Your task to perform on an android device: change alarm snooze length Image 0: 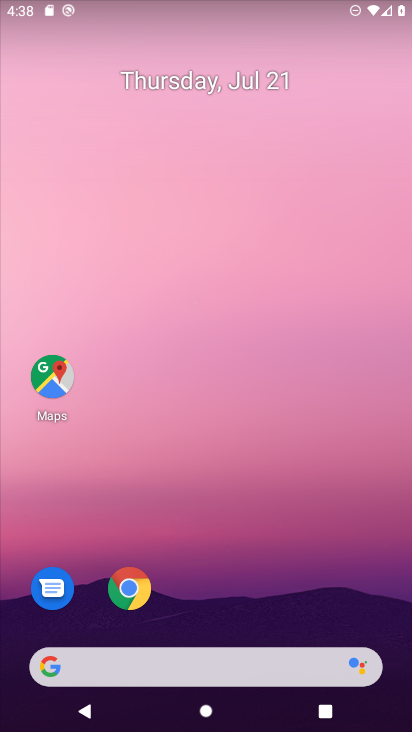
Step 0: drag from (273, 658) to (333, 195)
Your task to perform on an android device: change alarm snooze length Image 1: 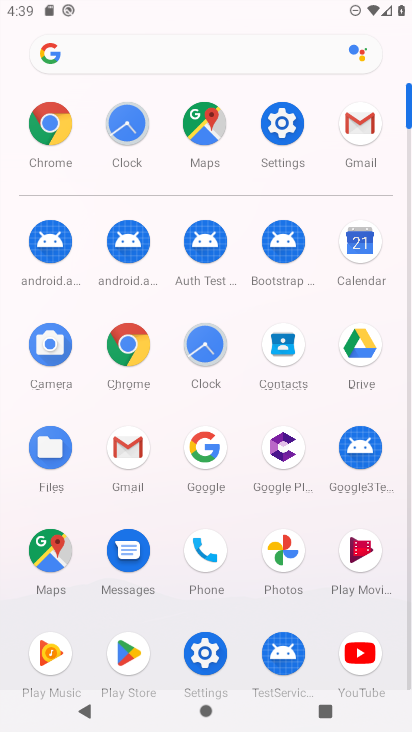
Step 1: click (221, 358)
Your task to perform on an android device: change alarm snooze length Image 2: 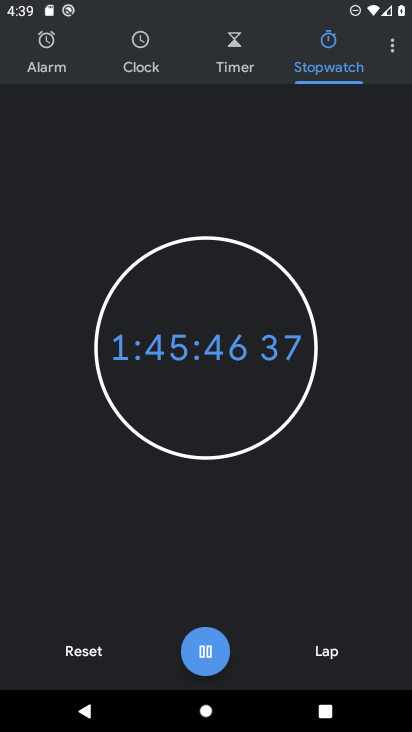
Step 2: click (390, 52)
Your task to perform on an android device: change alarm snooze length Image 3: 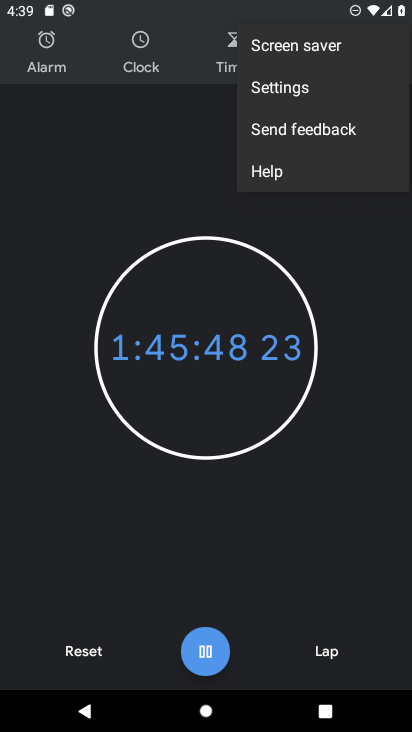
Step 3: click (298, 90)
Your task to perform on an android device: change alarm snooze length Image 4: 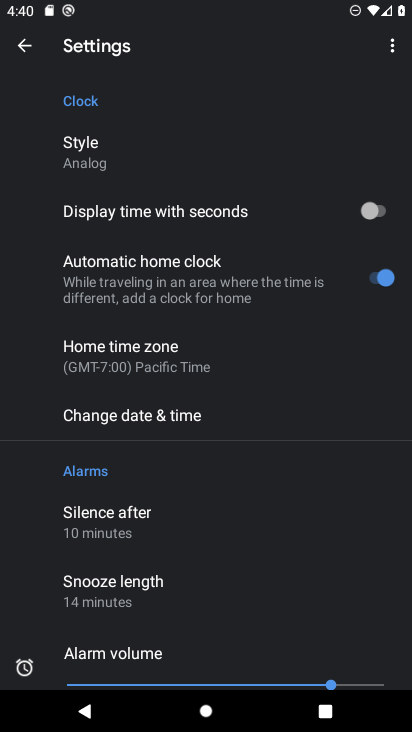
Step 4: click (143, 591)
Your task to perform on an android device: change alarm snooze length Image 5: 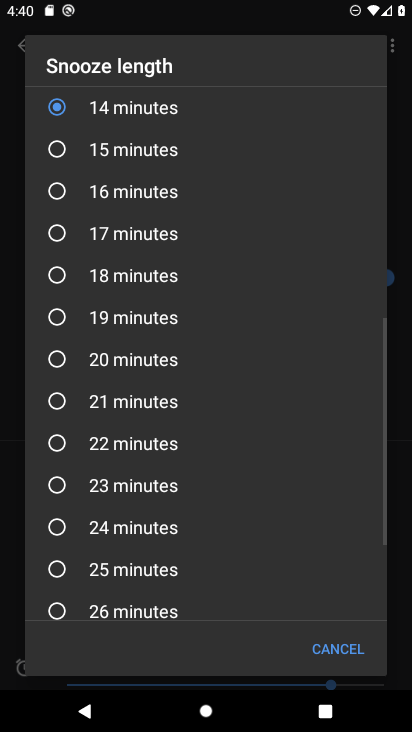
Step 5: click (72, 180)
Your task to perform on an android device: change alarm snooze length Image 6: 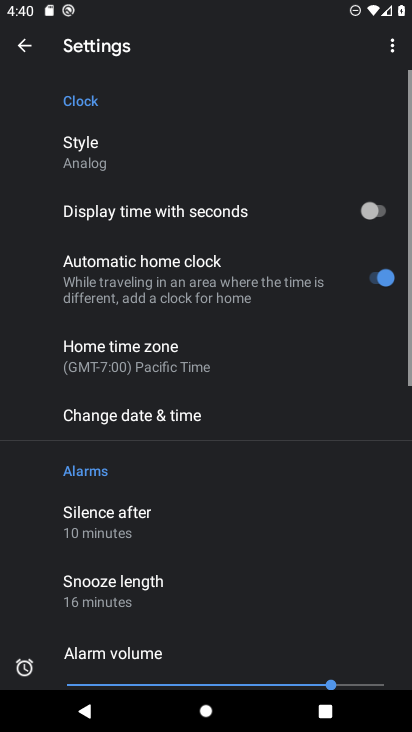
Step 6: task complete